Your task to perform on an android device: move a message to another label in the gmail app Image 0: 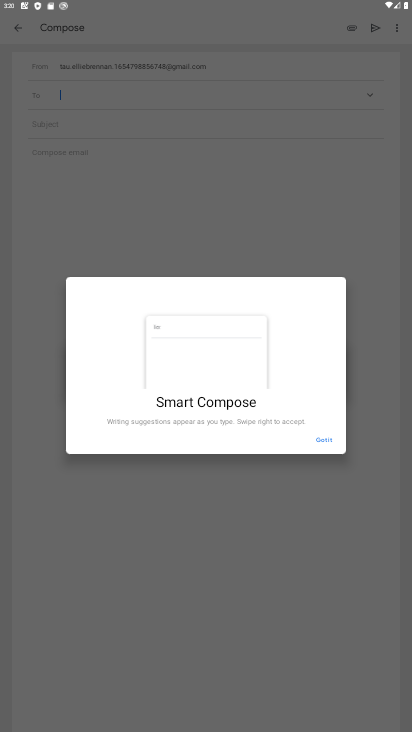
Step 0: press home button
Your task to perform on an android device: move a message to another label in the gmail app Image 1: 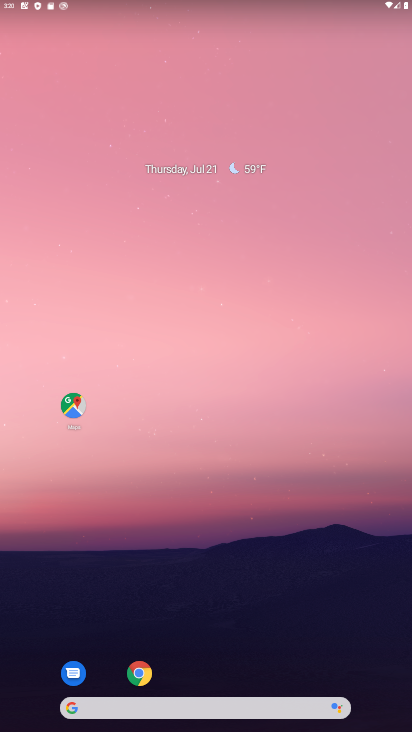
Step 1: drag from (390, 670) to (377, 131)
Your task to perform on an android device: move a message to another label in the gmail app Image 2: 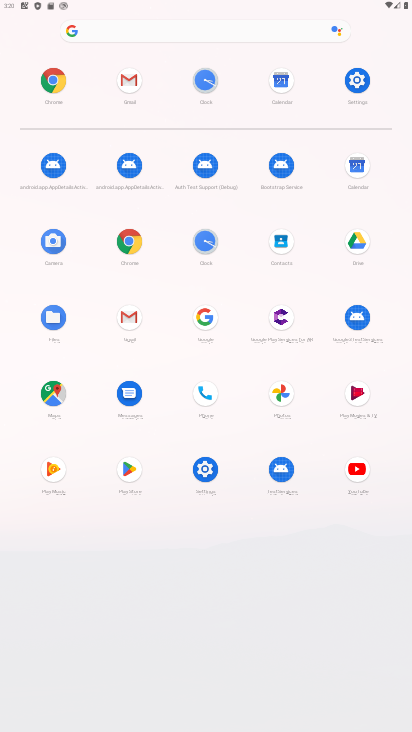
Step 2: click (126, 319)
Your task to perform on an android device: move a message to another label in the gmail app Image 3: 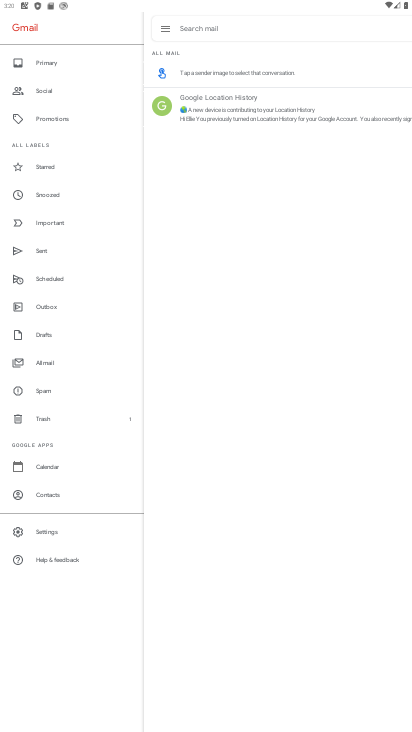
Step 3: click (42, 359)
Your task to perform on an android device: move a message to another label in the gmail app Image 4: 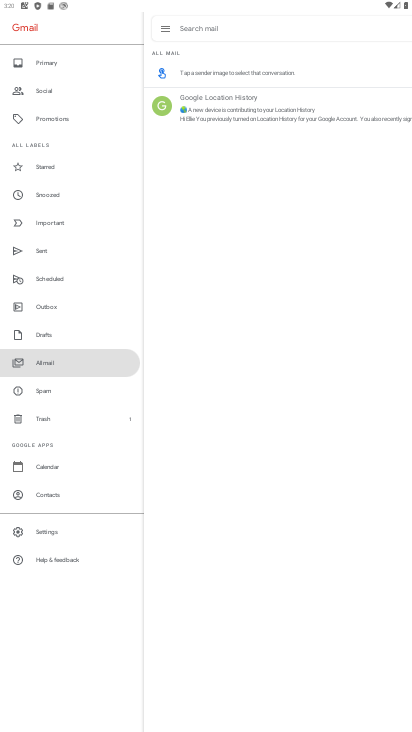
Step 4: click (259, 102)
Your task to perform on an android device: move a message to another label in the gmail app Image 5: 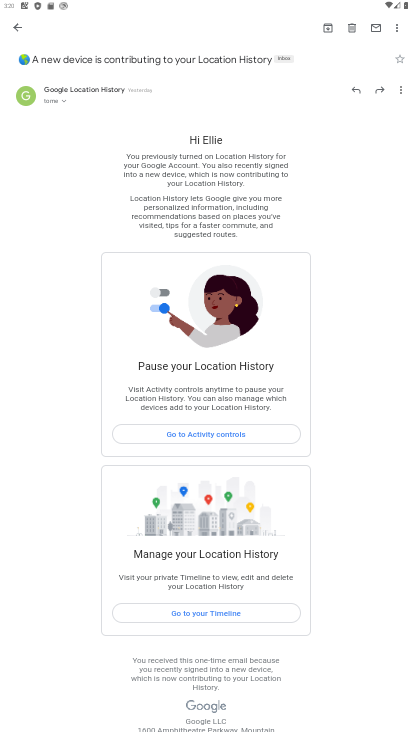
Step 5: click (393, 31)
Your task to perform on an android device: move a message to another label in the gmail app Image 6: 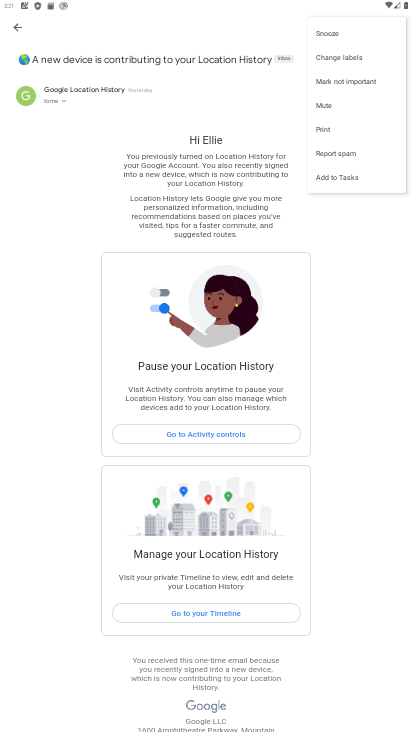
Step 6: click (345, 62)
Your task to perform on an android device: move a message to another label in the gmail app Image 7: 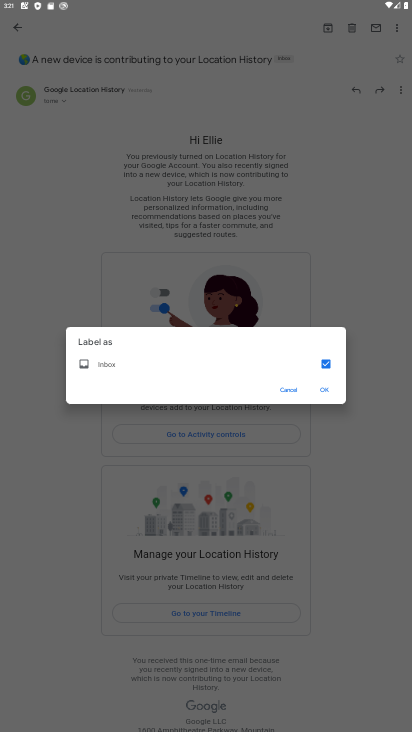
Step 7: click (324, 392)
Your task to perform on an android device: move a message to another label in the gmail app Image 8: 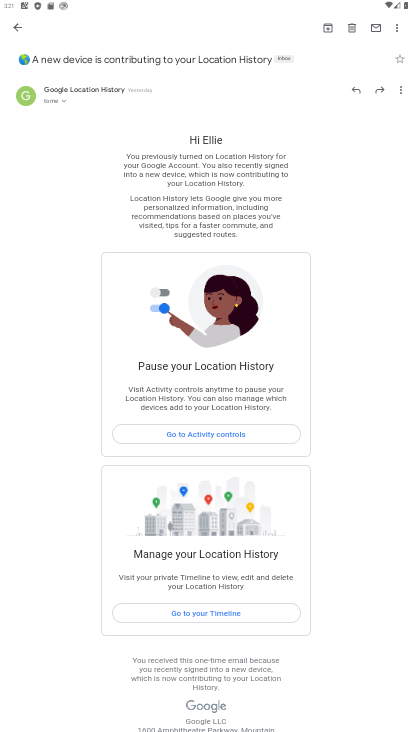
Step 8: task complete